Your task to perform on an android device: Open ESPN.com Image 0: 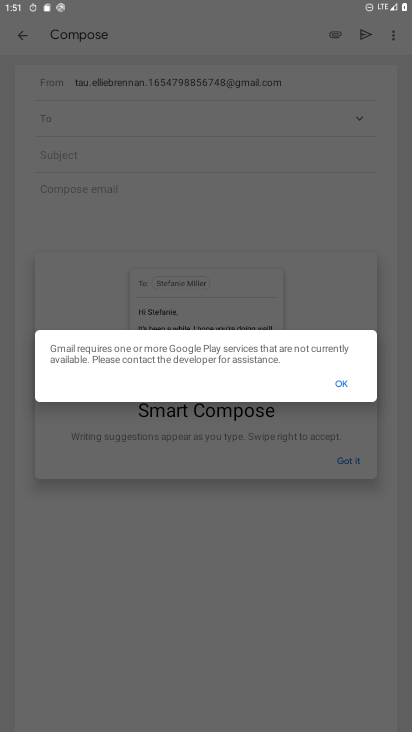
Step 0: press home button
Your task to perform on an android device: Open ESPN.com Image 1: 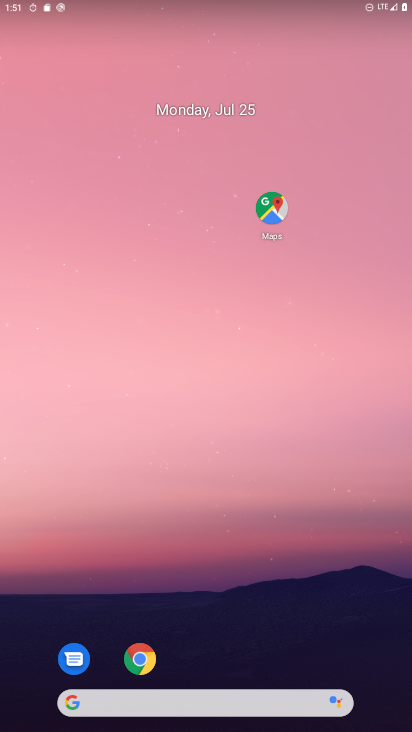
Step 1: click (128, 706)
Your task to perform on an android device: Open ESPN.com Image 2: 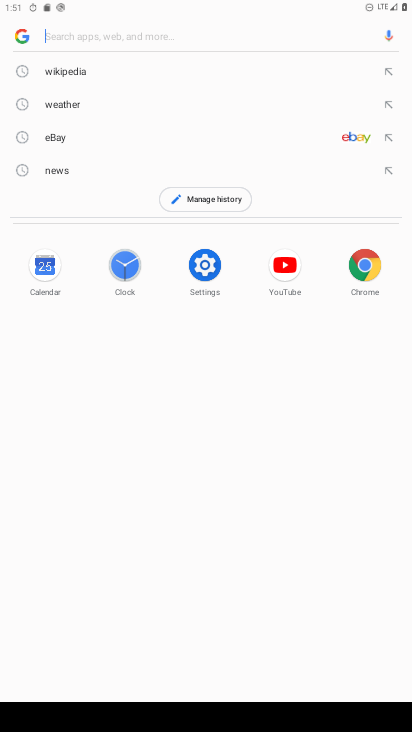
Step 2: type "ESPN.com"
Your task to perform on an android device: Open ESPN.com Image 3: 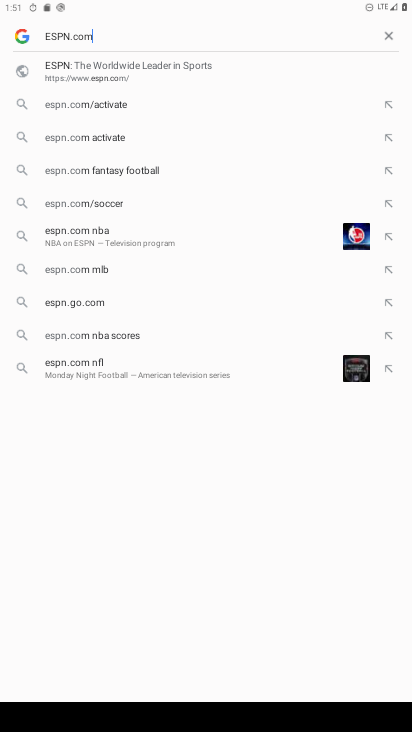
Step 3: type ""
Your task to perform on an android device: Open ESPN.com Image 4: 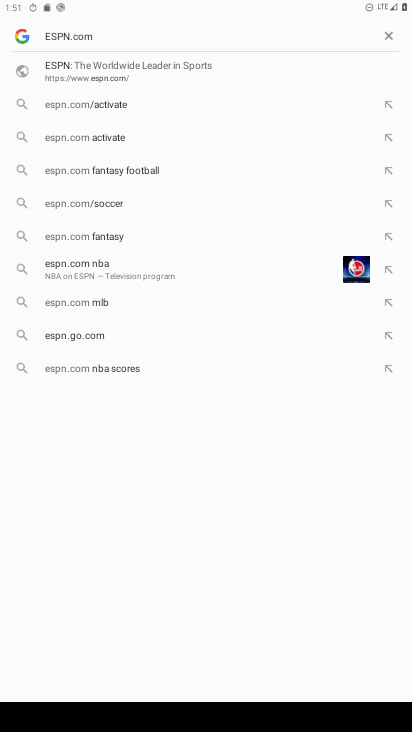
Step 4: type ""
Your task to perform on an android device: Open ESPN.com Image 5: 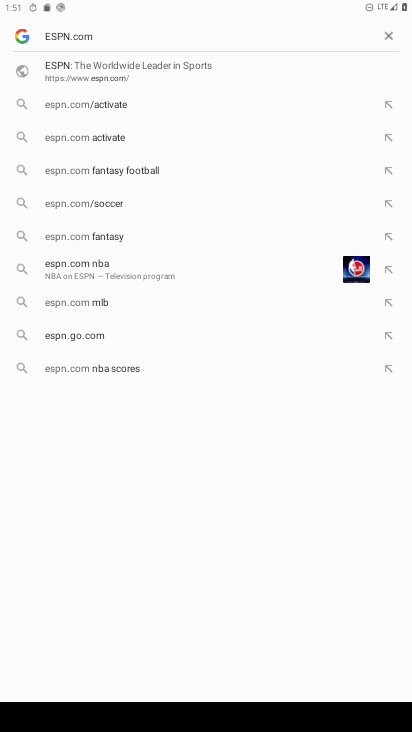
Step 5: task complete